Your task to perform on an android device: Go to location settings Image 0: 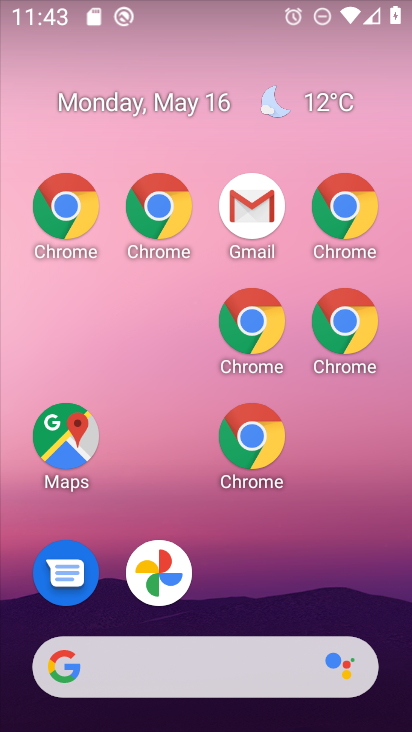
Step 0: drag from (368, 686) to (269, 296)
Your task to perform on an android device: Go to location settings Image 1: 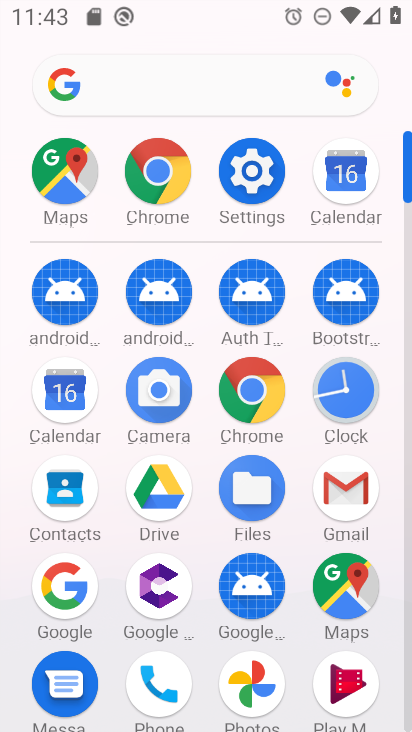
Step 1: click (252, 182)
Your task to perform on an android device: Go to location settings Image 2: 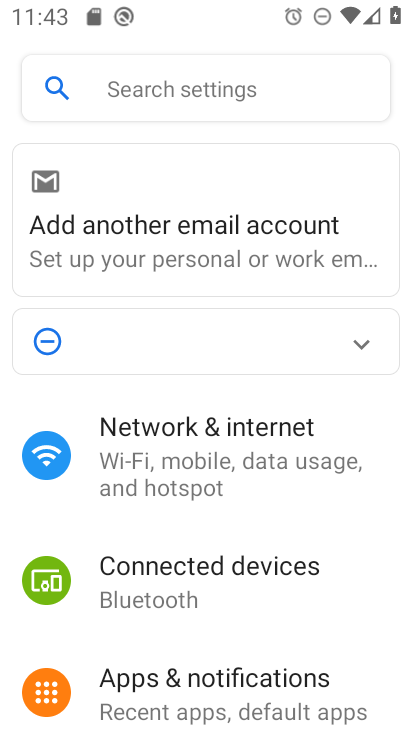
Step 2: drag from (222, 669) to (210, 405)
Your task to perform on an android device: Go to location settings Image 3: 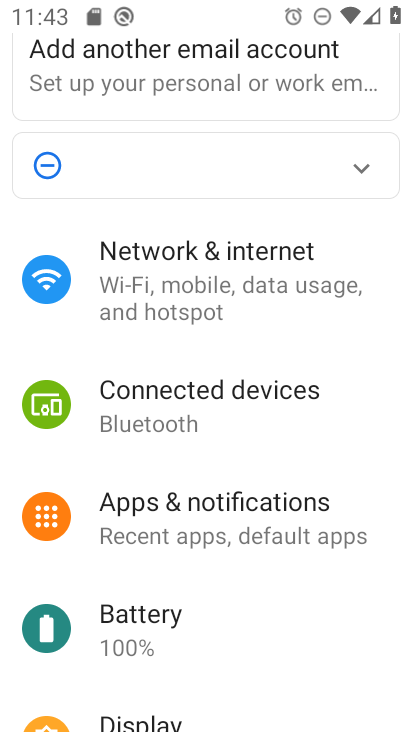
Step 3: drag from (182, 544) to (161, 273)
Your task to perform on an android device: Go to location settings Image 4: 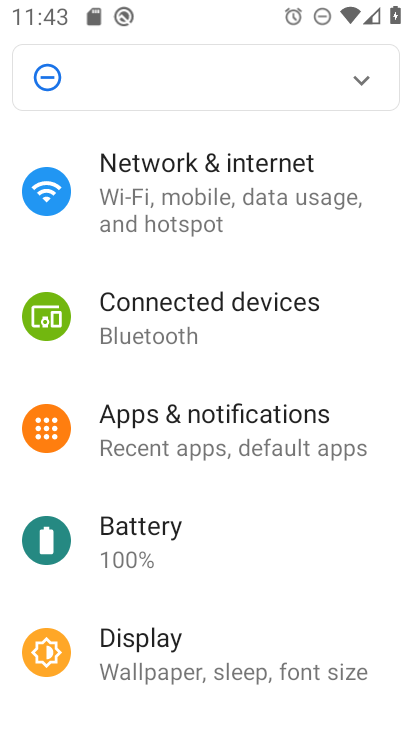
Step 4: drag from (186, 554) to (205, 210)
Your task to perform on an android device: Go to location settings Image 5: 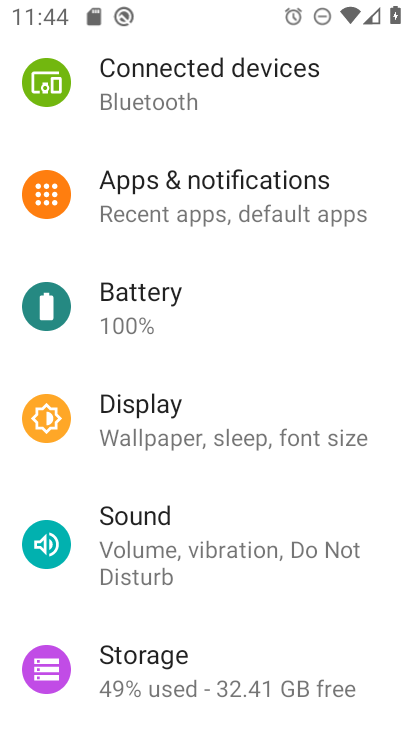
Step 5: drag from (211, 497) to (138, 89)
Your task to perform on an android device: Go to location settings Image 6: 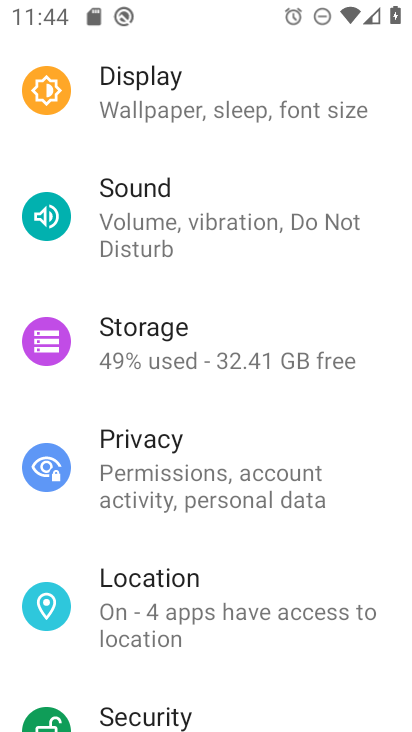
Step 6: drag from (188, 475) to (146, 157)
Your task to perform on an android device: Go to location settings Image 7: 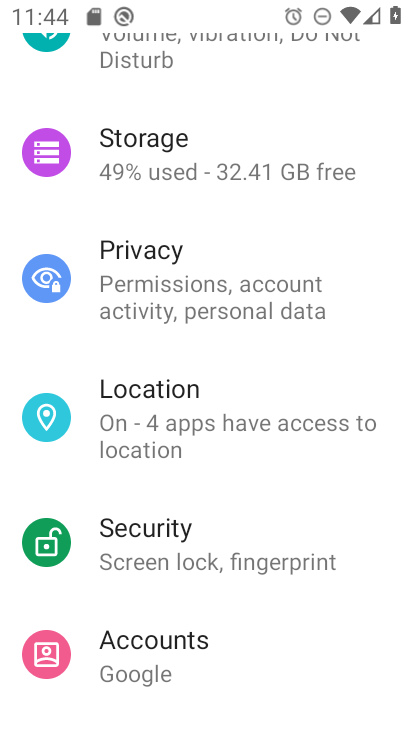
Step 7: click (157, 425)
Your task to perform on an android device: Go to location settings Image 8: 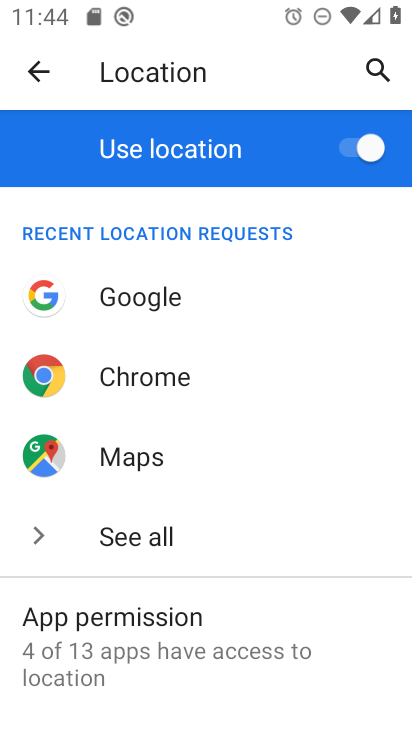
Step 8: task complete